Your task to perform on an android device: Do I have any events today? Image 0: 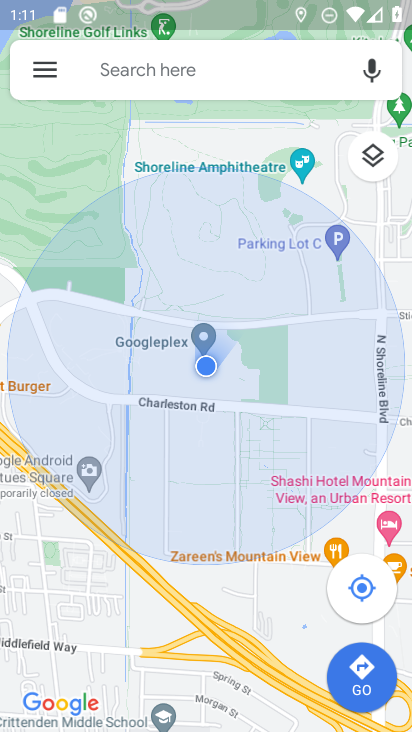
Step 0: press back button
Your task to perform on an android device: Do I have any events today? Image 1: 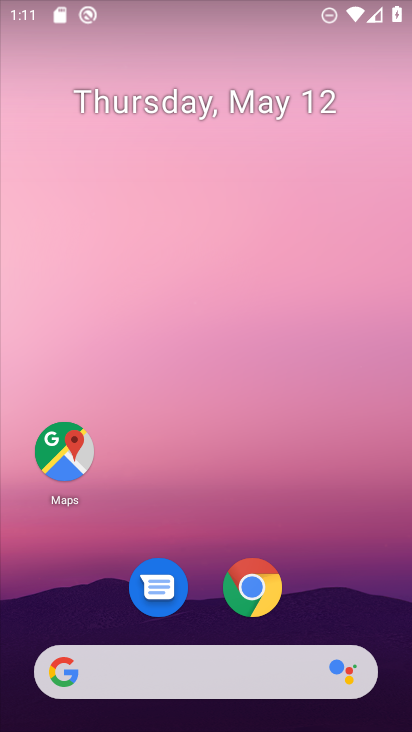
Step 1: drag from (331, 562) to (222, 30)
Your task to perform on an android device: Do I have any events today? Image 2: 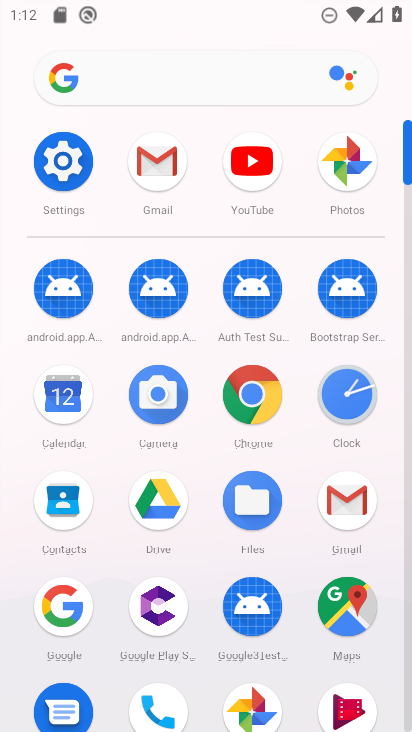
Step 2: click (62, 393)
Your task to perform on an android device: Do I have any events today? Image 3: 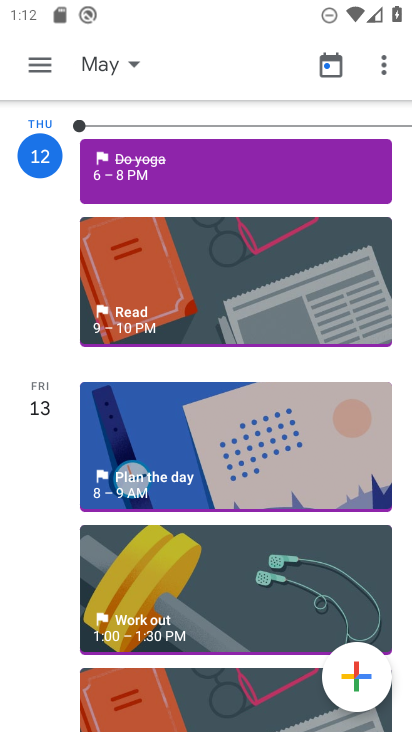
Step 3: click (241, 175)
Your task to perform on an android device: Do I have any events today? Image 4: 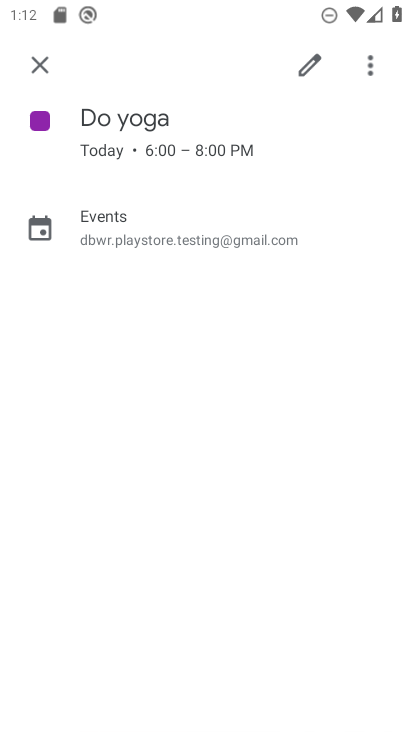
Step 4: task complete